Your task to perform on an android device: set default search engine in the chrome app Image 0: 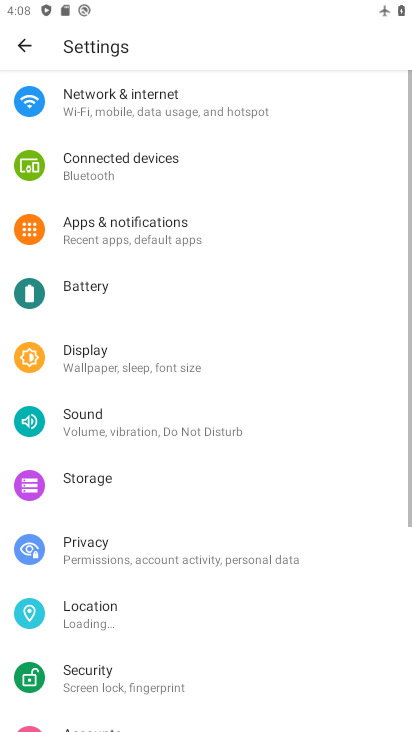
Step 0: drag from (270, 490) to (175, 243)
Your task to perform on an android device: set default search engine in the chrome app Image 1: 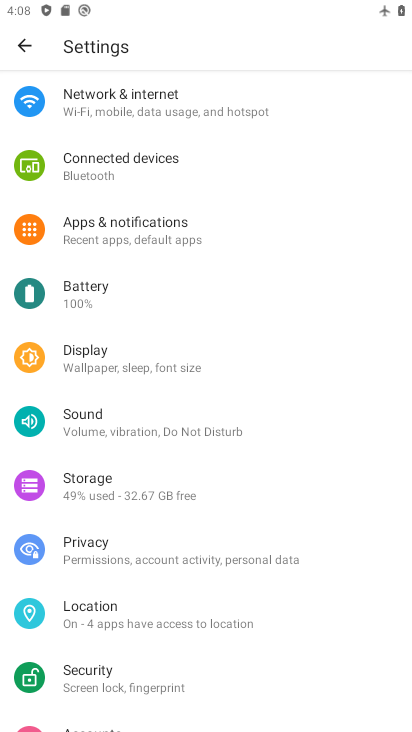
Step 1: click (16, 40)
Your task to perform on an android device: set default search engine in the chrome app Image 2: 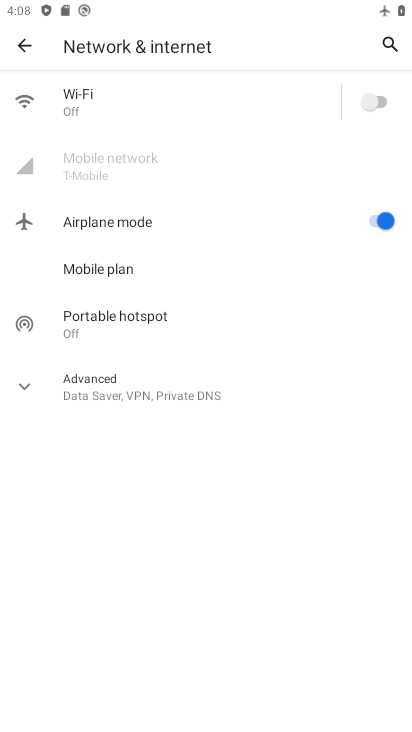
Step 2: press back button
Your task to perform on an android device: set default search engine in the chrome app Image 3: 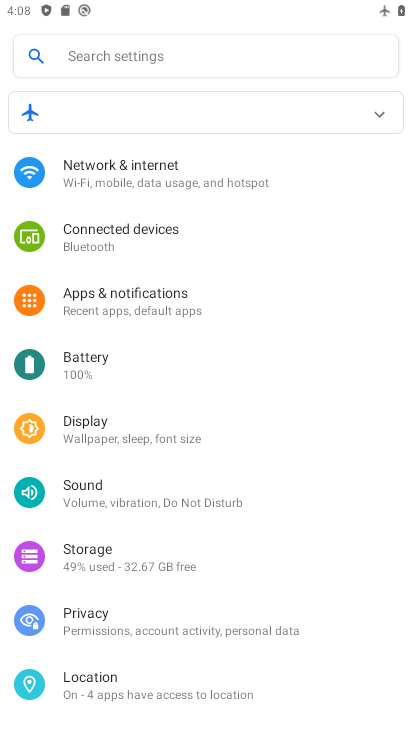
Step 3: press home button
Your task to perform on an android device: set default search engine in the chrome app Image 4: 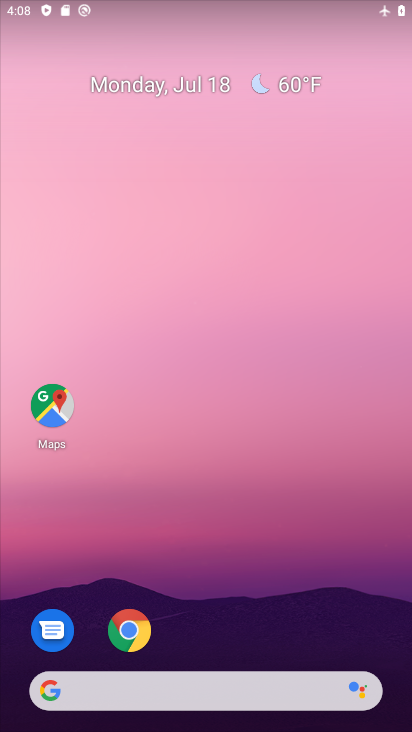
Step 4: drag from (238, 702) to (133, 237)
Your task to perform on an android device: set default search engine in the chrome app Image 5: 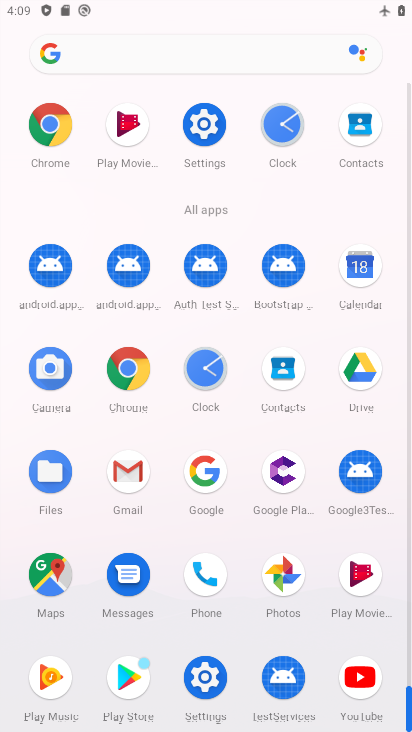
Step 5: click (136, 364)
Your task to perform on an android device: set default search engine in the chrome app Image 6: 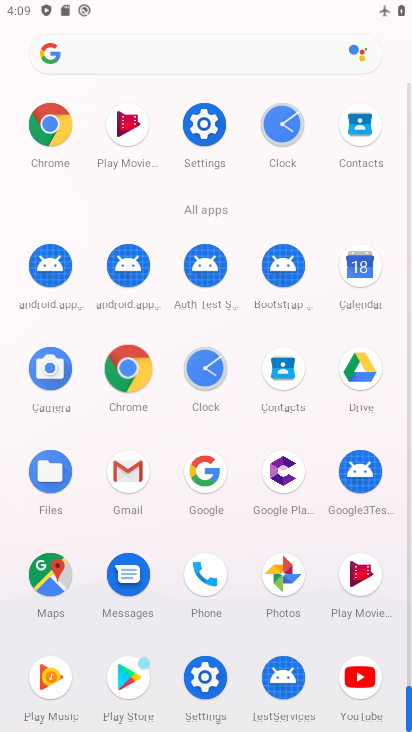
Step 6: click (136, 367)
Your task to perform on an android device: set default search engine in the chrome app Image 7: 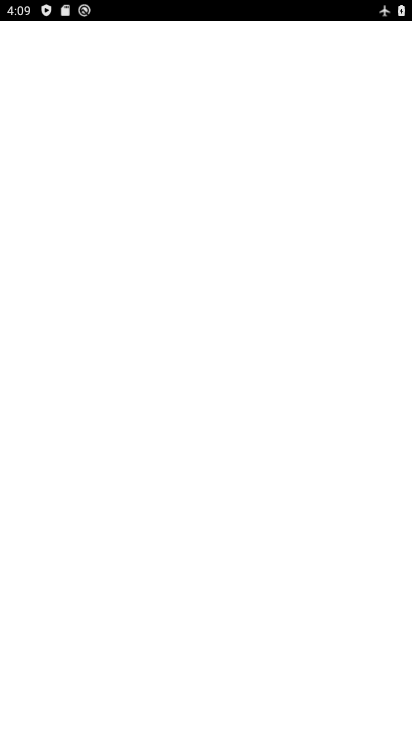
Step 7: click (143, 370)
Your task to perform on an android device: set default search engine in the chrome app Image 8: 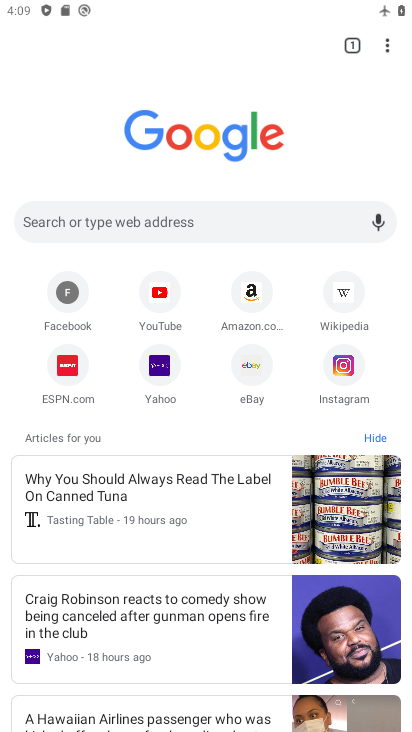
Step 8: drag from (385, 49) to (220, 380)
Your task to perform on an android device: set default search engine in the chrome app Image 9: 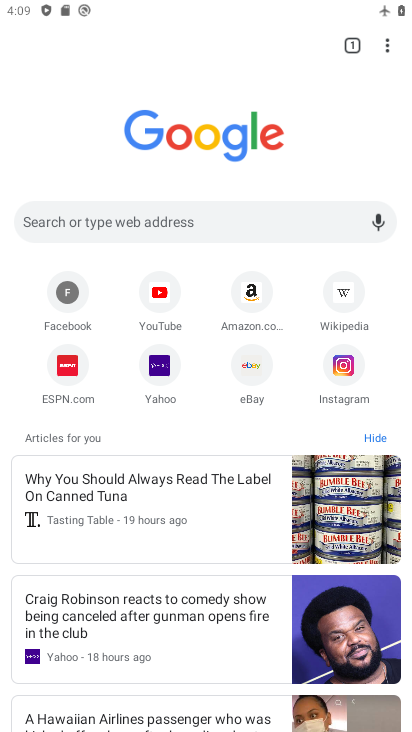
Step 9: click (221, 381)
Your task to perform on an android device: set default search engine in the chrome app Image 10: 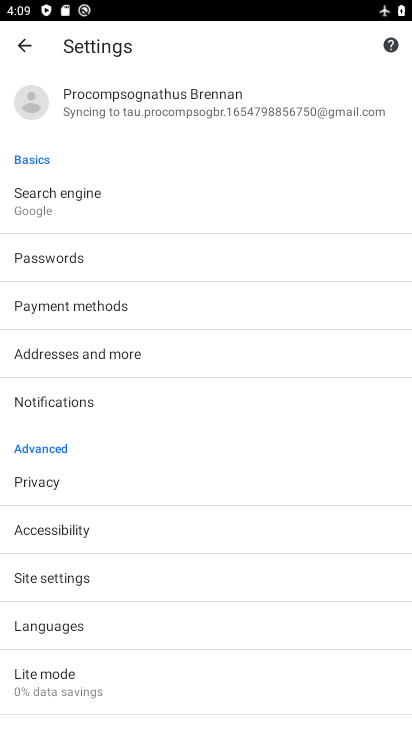
Step 10: click (52, 185)
Your task to perform on an android device: set default search engine in the chrome app Image 11: 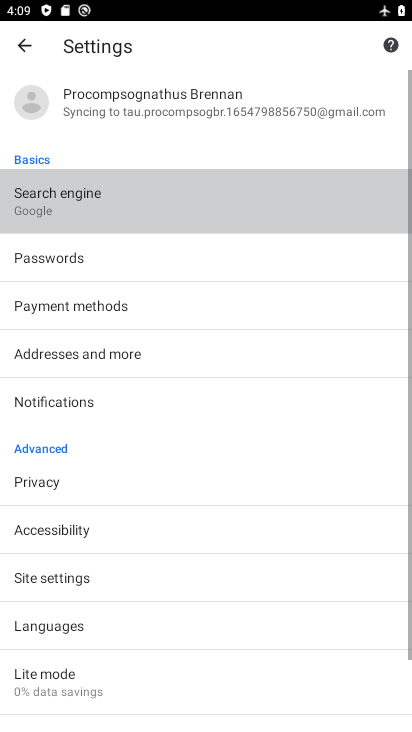
Step 11: click (49, 188)
Your task to perform on an android device: set default search engine in the chrome app Image 12: 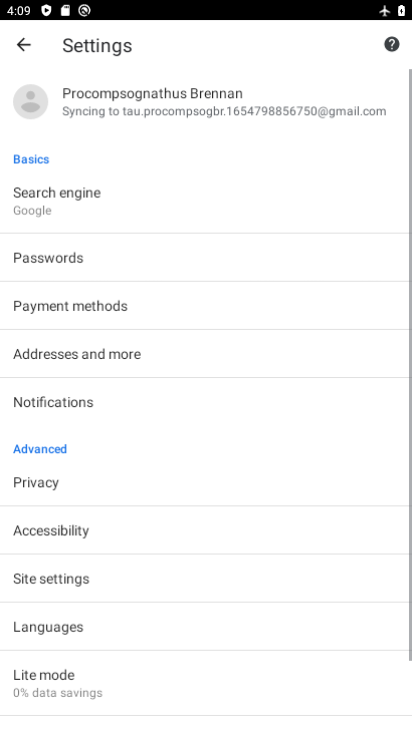
Step 12: click (49, 190)
Your task to perform on an android device: set default search engine in the chrome app Image 13: 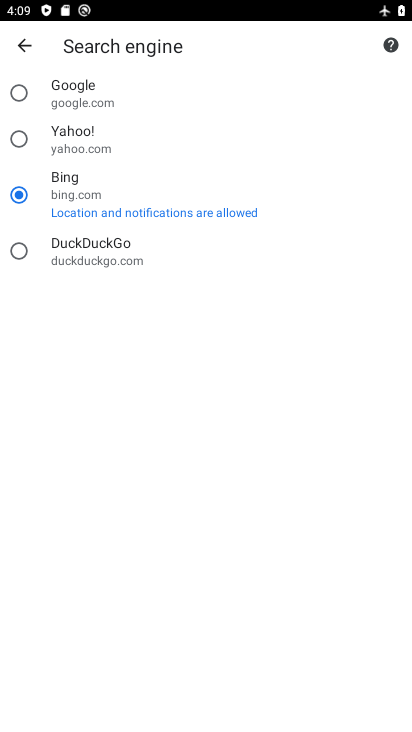
Step 13: click (13, 89)
Your task to perform on an android device: set default search engine in the chrome app Image 14: 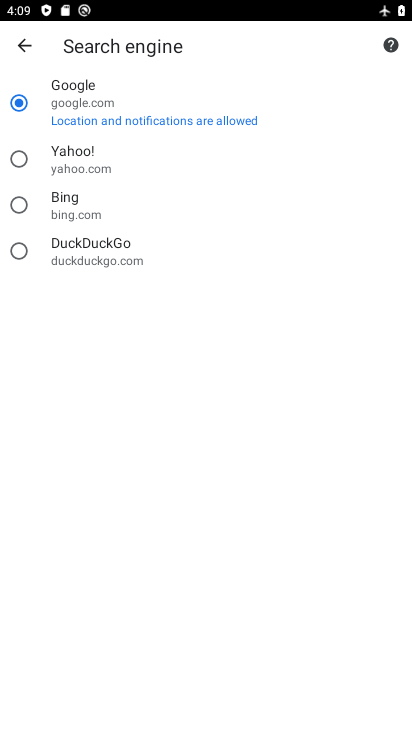
Step 14: task complete